Your task to perform on an android device: turn pop-ups on in chrome Image 0: 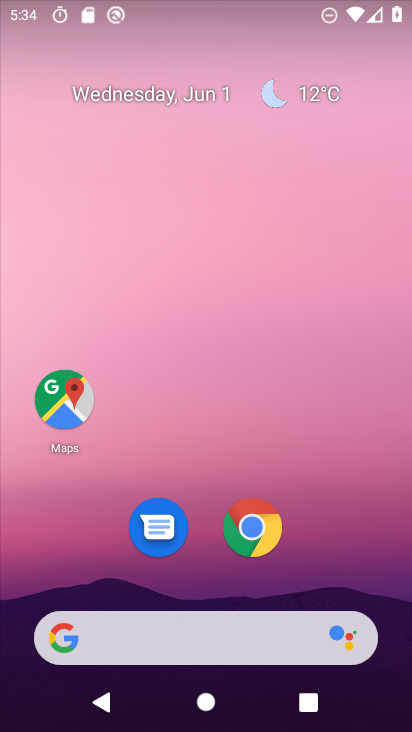
Step 0: click (257, 521)
Your task to perform on an android device: turn pop-ups on in chrome Image 1: 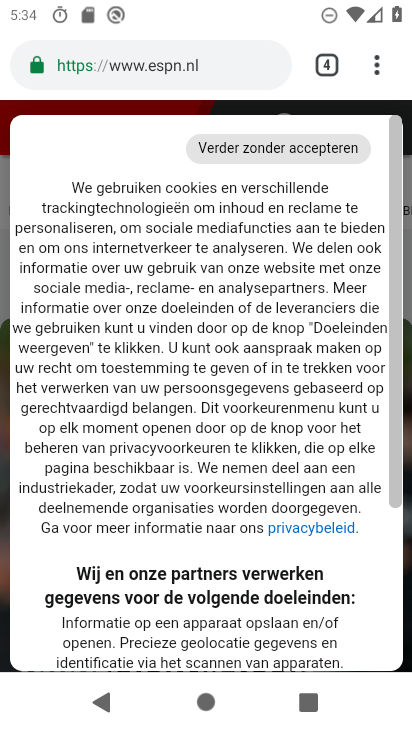
Step 1: click (386, 76)
Your task to perform on an android device: turn pop-ups on in chrome Image 2: 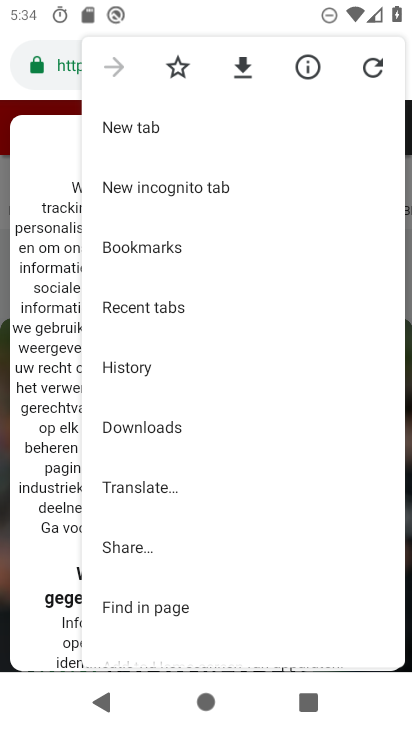
Step 2: drag from (152, 610) to (224, 221)
Your task to perform on an android device: turn pop-ups on in chrome Image 3: 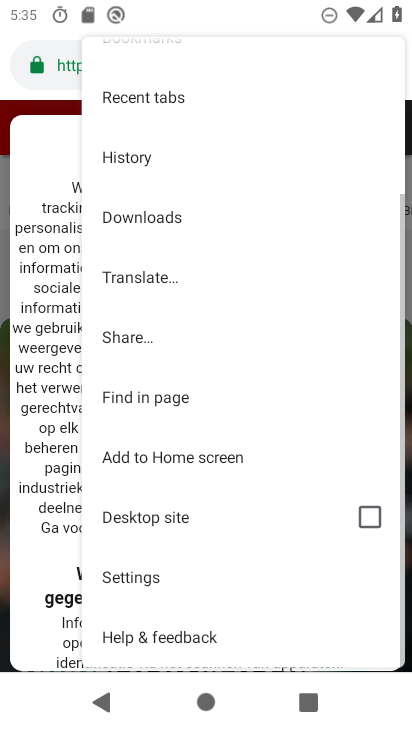
Step 3: click (158, 576)
Your task to perform on an android device: turn pop-ups on in chrome Image 4: 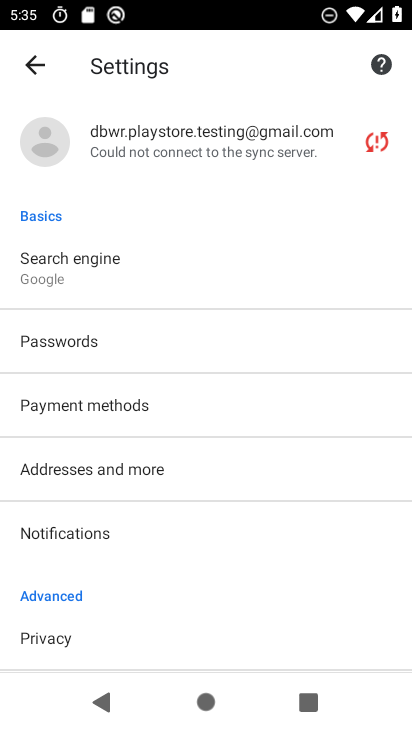
Step 4: drag from (158, 576) to (291, 219)
Your task to perform on an android device: turn pop-ups on in chrome Image 5: 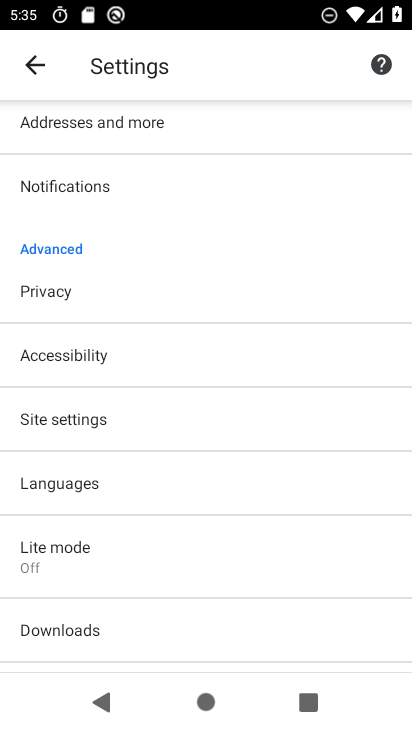
Step 5: click (133, 414)
Your task to perform on an android device: turn pop-ups on in chrome Image 6: 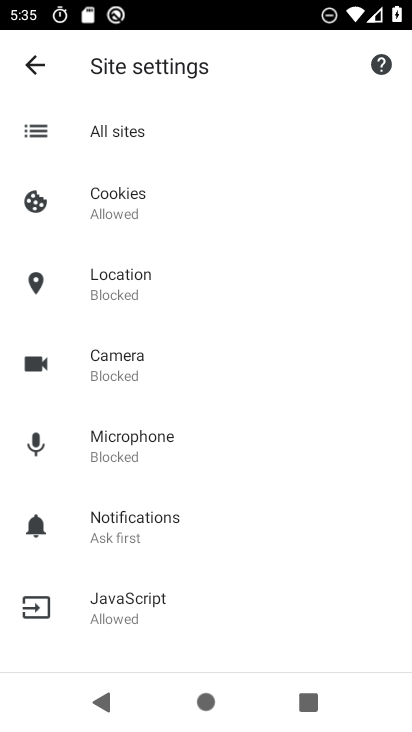
Step 6: drag from (146, 564) to (221, 209)
Your task to perform on an android device: turn pop-ups on in chrome Image 7: 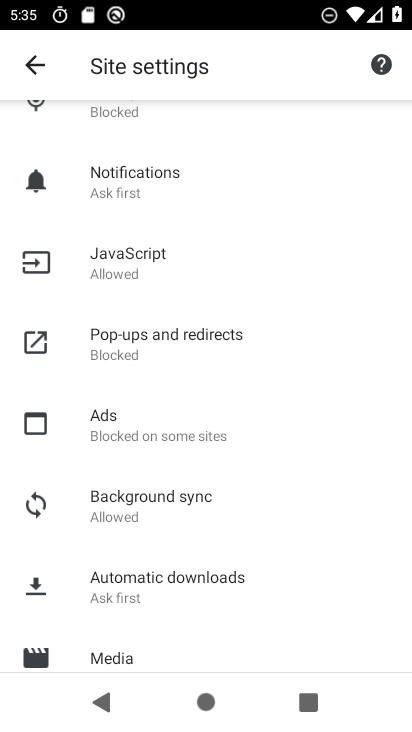
Step 7: click (160, 351)
Your task to perform on an android device: turn pop-ups on in chrome Image 8: 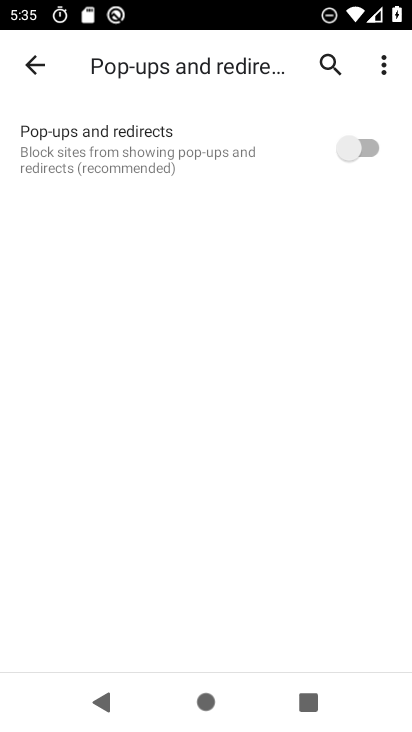
Step 8: click (380, 149)
Your task to perform on an android device: turn pop-ups on in chrome Image 9: 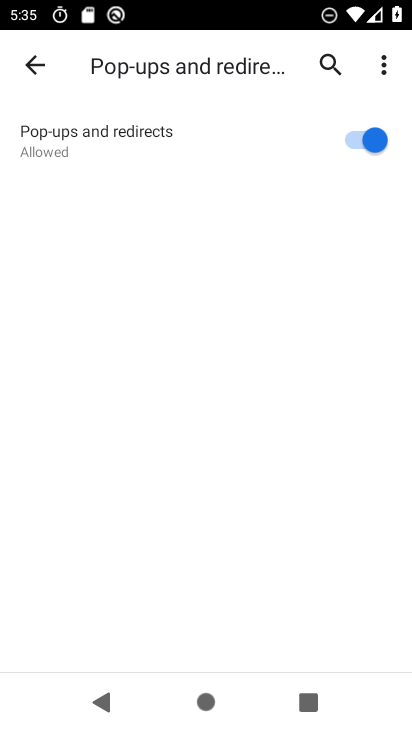
Step 9: task complete